Your task to perform on an android device: open app "Messages" (install if not already installed), go to login, and select forgot password Image 0: 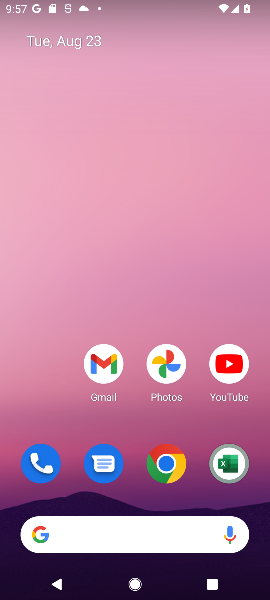
Step 0: drag from (135, 428) to (151, 26)
Your task to perform on an android device: open app "Messages" (install if not already installed), go to login, and select forgot password Image 1: 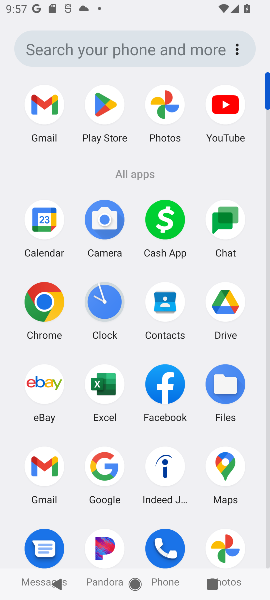
Step 1: click (98, 99)
Your task to perform on an android device: open app "Messages" (install if not already installed), go to login, and select forgot password Image 2: 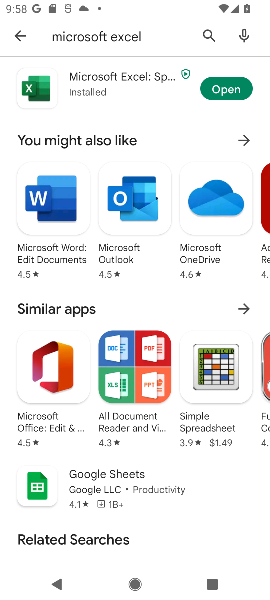
Step 2: click (200, 31)
Your task to perform on an android device: open app "Messages" (install if not already installed), go to login, and select forgot password Image 3: 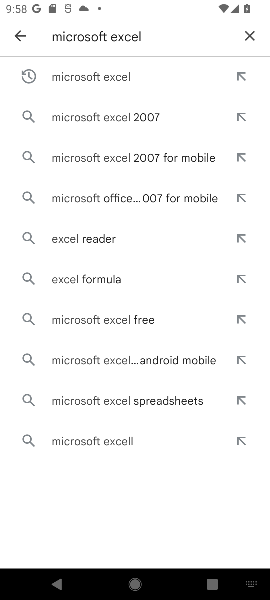
Step 3: click (253, 35)
Your task to perform on an android device: open app "Messages" (install if not already installed), go to login, and select forgot password Image 4: 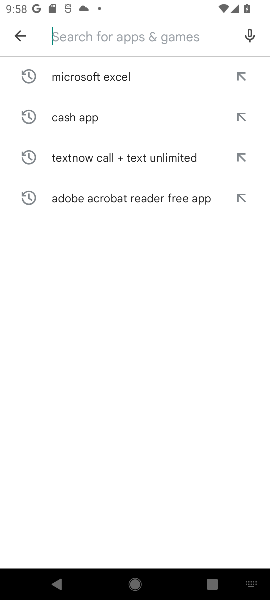
Step 4: type "Messages"
Your task to perform on an android device: open app "Messages" (install if not already installed), go to login, and select forgot password Image 5: 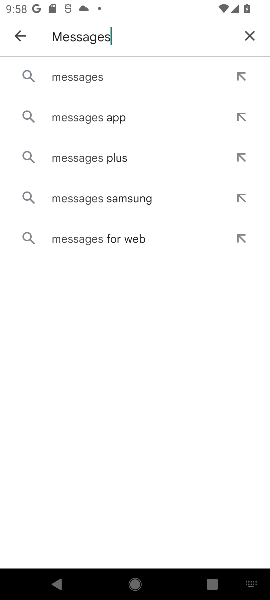
Step 5: click (95, 79)
Your task to perform on an android device: open app "Messages" (install if not already installed), go to login, and select forgot password Image 6: 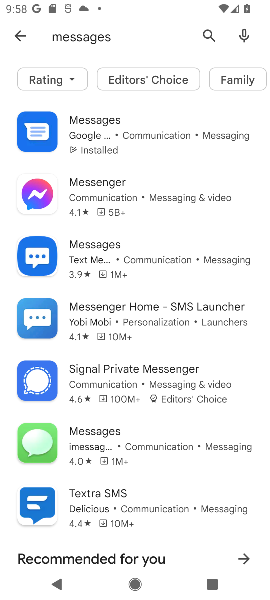
Step 6: click (120, 130)
Your task to perform on an android device: open app "Messages" (install if not already installed), go to login, and select forgot password Image 7: 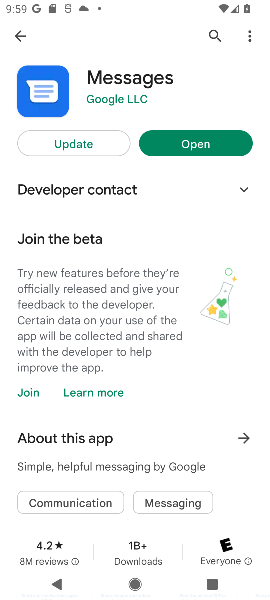
Step 7: click (208, 138)
Your task to perform on an android device: open app "Messages" (install if not already installed), go to login, and select forgot password Image 8: 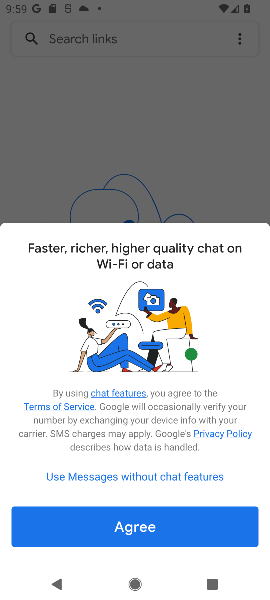
Step 8: click (131, 529)
Your task to perform on an android device: open app "Messages" (install if not already installed), go to login, and select forgot password Image 9: 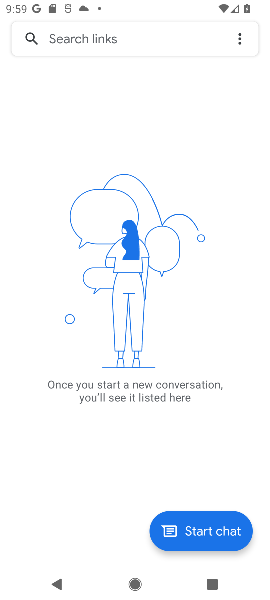
Step 9: task complete